Your task to perform on an android device: install app "Upside-Cash back on gas & food" Image 0: 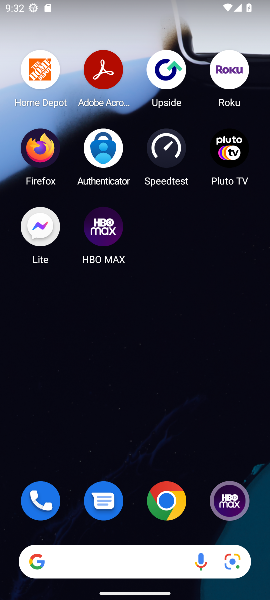
Step 0: drag from (117, 515) to (134, 78)
Your task to perform on an android device: install app "Upside-Cash back on gas & food" Image 1: 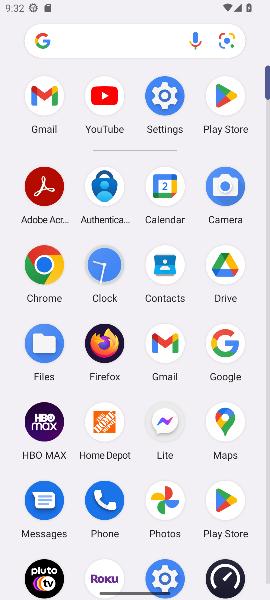
Step 1: click (231, 102)
Your task to perform on an android device: install app "Upside-Cash back on gas & food" Image 2: 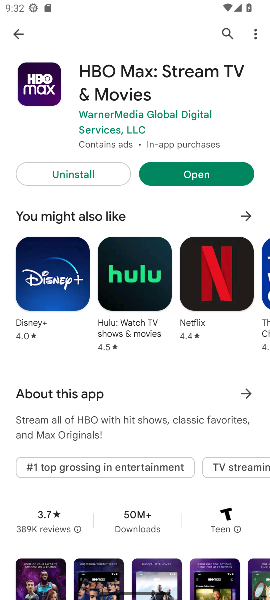
Step 2: drag from (130, 85) to (264, 569)
Your task to perform on an android device: install app "Upside-Cash back on gas & food" Image 3: 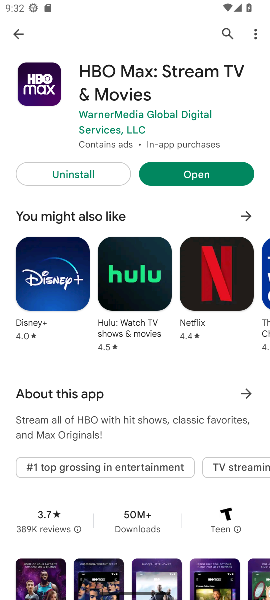
Step 3: click (225, 35)
Your task to perform on an android device: install app "Upside-Cash back on gas & food" Image 4: 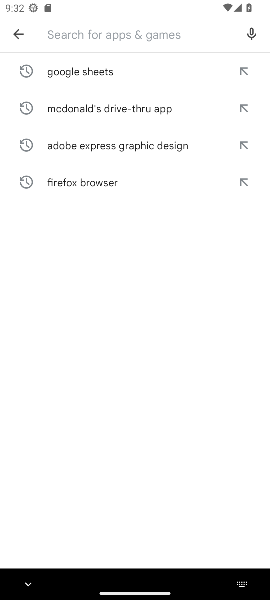
Step 4: type "Upside-Cash back on gas & food"
Your task to perform on an android device: install app "Upside-Cash back on gas & food" Image 5: 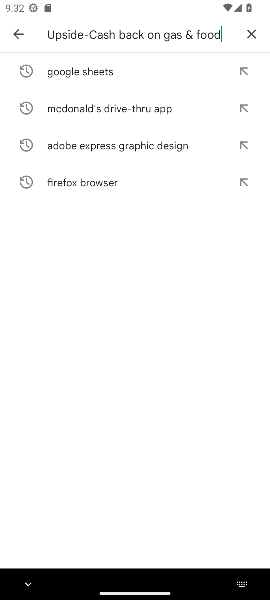
Step 5: type ""
Your task to perform on an android device: install app "Upside-Cash back on gas & food" Image 6: 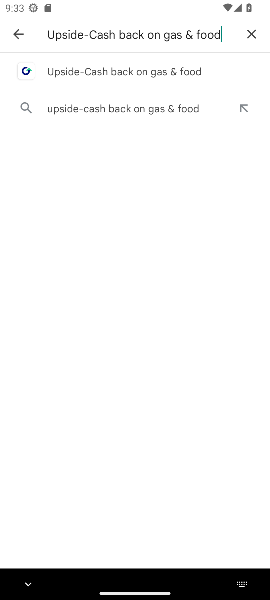
Step 6: click (125, 74)
Your task to perform on an android device: install app "Upside-Cash back on gas & food" Image 7: 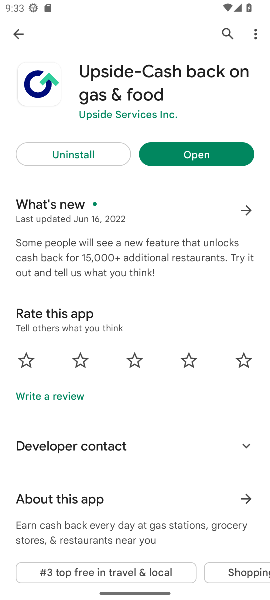
Step 7: task complete